Your task to perform on an android device: Show me popular games on the Play Store Image 0: 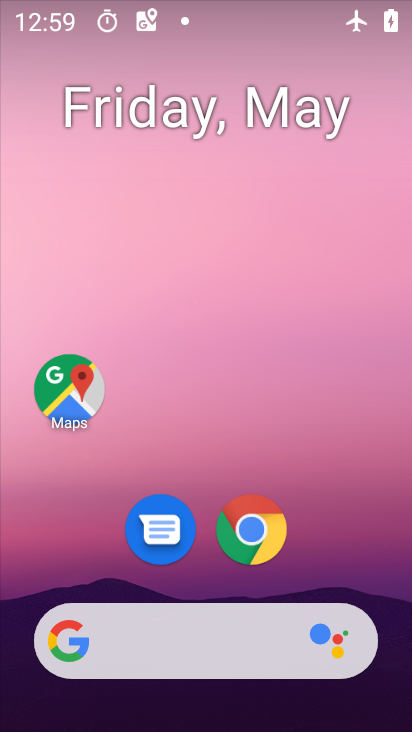
Step 0: drag from (198, 629) to (208, 5)
Your task to perform on an android device: Show me popular games on the Play Store Image 1: 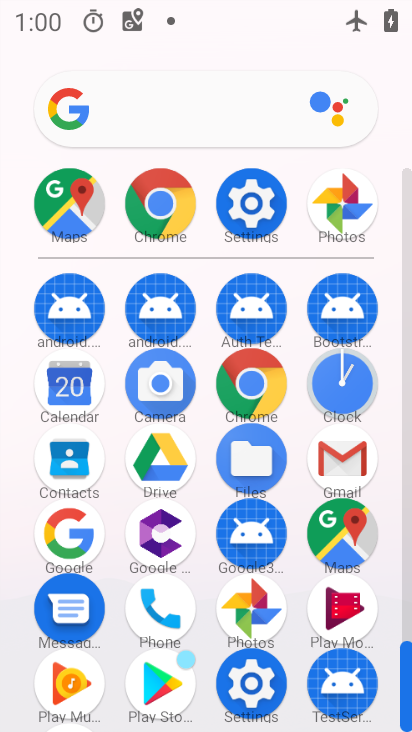
Step 1: click (177, 685)
Your task to perform on an android device: Show me popular games on the Play Store Image 2: 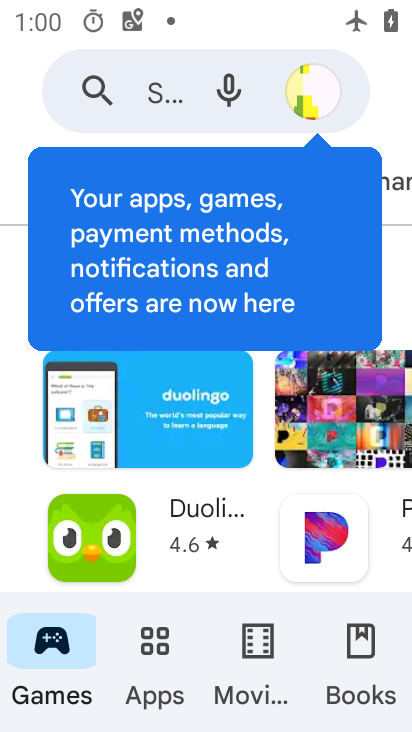
Step 2: click (52, 673)
Your task to perform on an android device: Show me popular games on the Play Store Image 3: 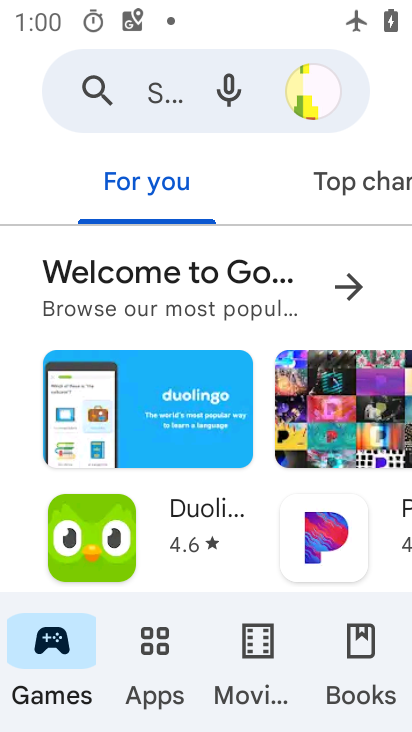
Step 3: task complete